Your task to perform on an android device: turn on notifications settings in the gmail app Image 0: 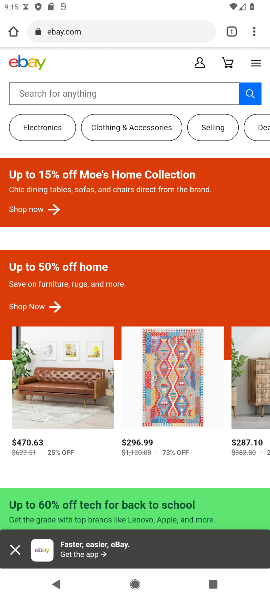
Step 0: press home button
Your task to perform on an android device: turn on notifications settings in the gmail app Image 1: 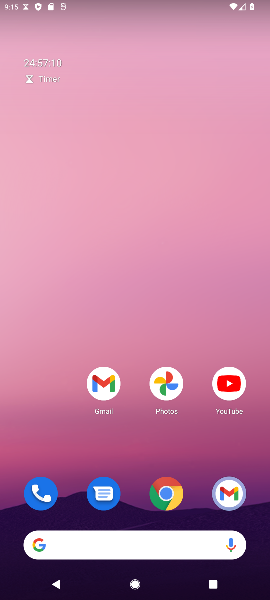
Step 1: drag from (41, 359) to (3, 104)
Your task to perform on an android device: turn on notifications settings in the gmail app Image 2: 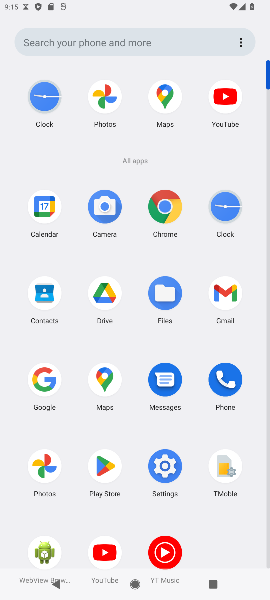
Step 2: click (221, 295)
Your task to perform on an android device: turn on notifications settings in the gmail app Image 3: 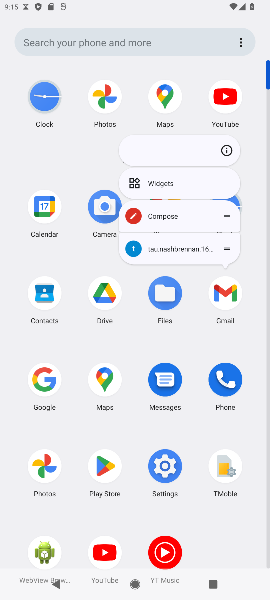
Step 3: click (218, 287)
Your task to perform on an android device: turn on notifications settings in the gmail app Image 4: 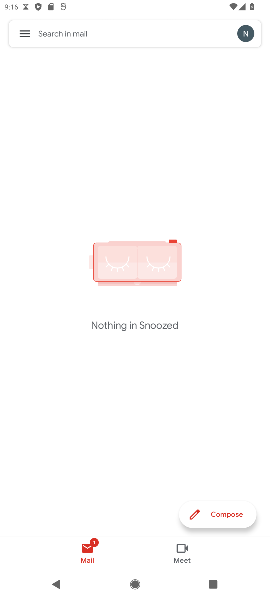
Step 4: click (23, 32)
Your task to perform on an android device: turn on notifications settings in the gmail app Image 5: 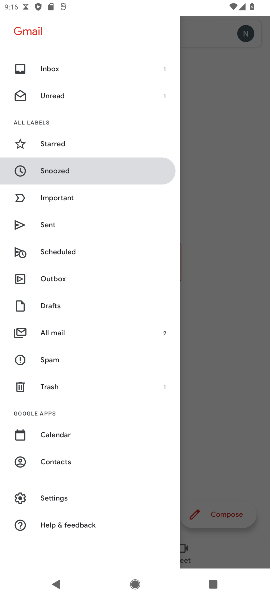
Step 5: click (57, 498)
Your task to perform on an android device: turn on notifications settings in the gmail app Image 6: 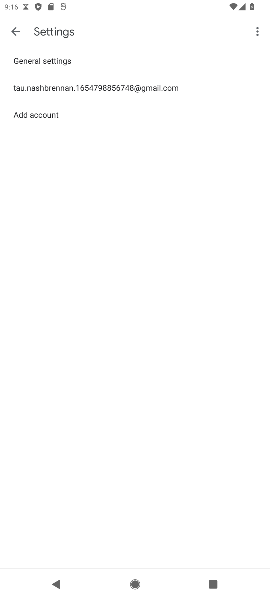
Step 6: click (19, 81)
Your task to perform on an android device: turn on notifications settings in the gmail app Image 7: 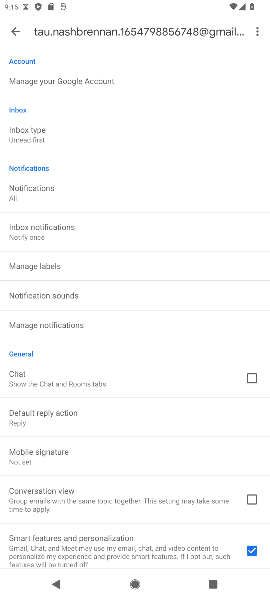
Step 7: click (36, 191)
Your task to perform on an android device: turn on notifications settings in the gmail app Image 8: 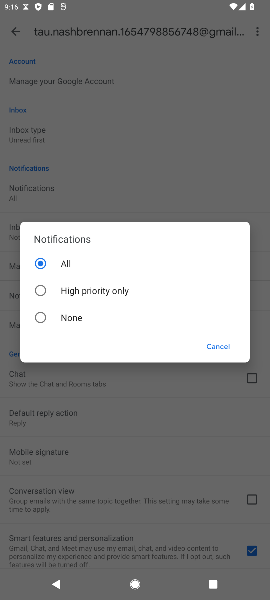
Step 8: task complete